Your task to perform on an android device: Open Google Maps Image 0: 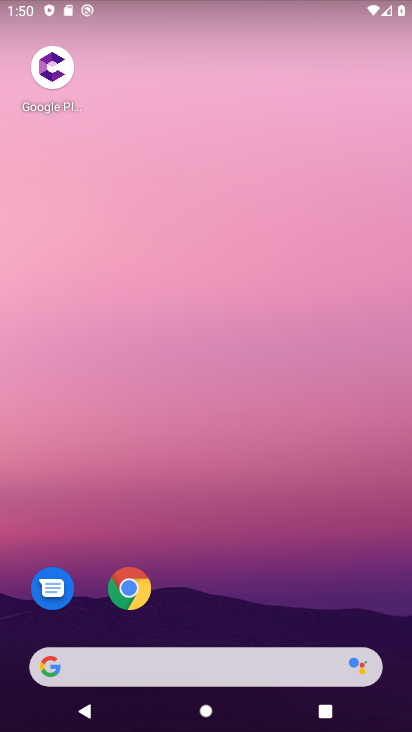
Step 0: drag from (32, 561) to (273, 181)
Your task to perform on an android device: Open Google Maps Image 1: 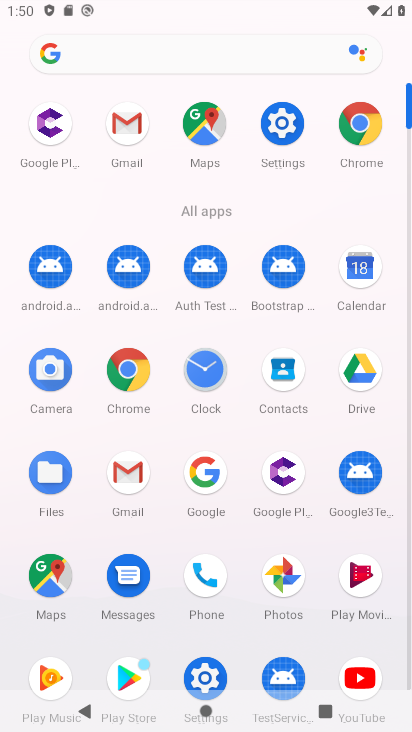
Step 1: click (32, 579)
Your task to perform on an android device: Open Google Maps Image 2: 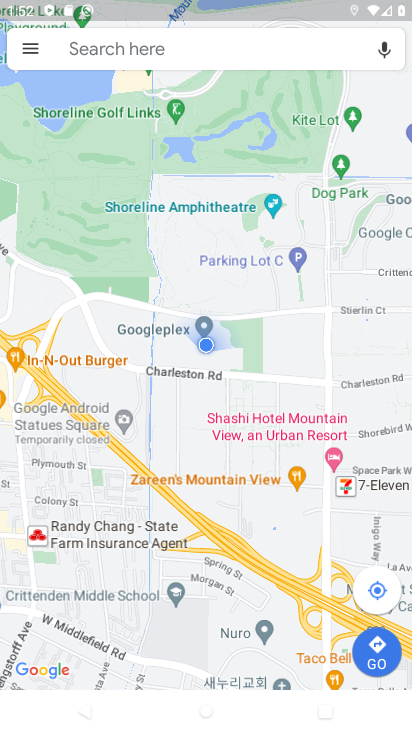
Step 2: task complete